Your task to perform on an android device: toggle wifi Image 0: 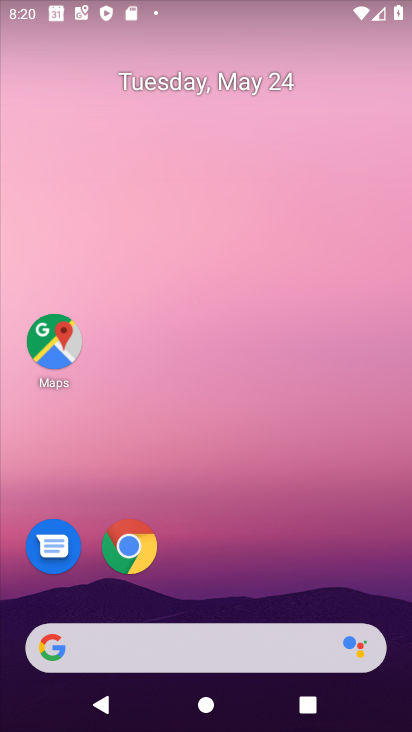
Step 0: drag from (263, 530) to (238, 20)
Your task to perform on an android device: toggle wifi Image 1: 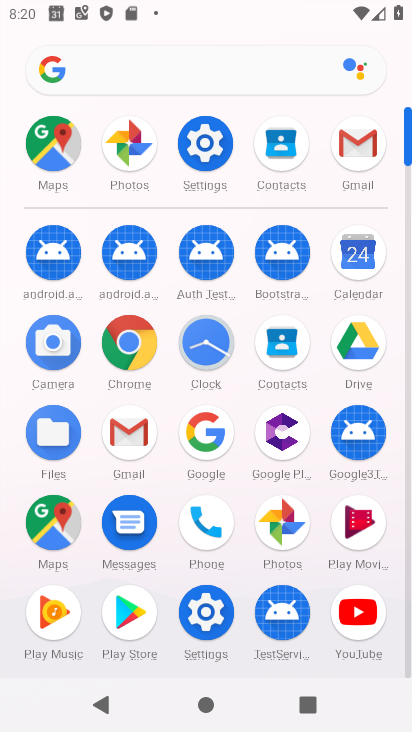
Step 1: click (213, 131)
Your task to perform on an android device: toggle wifi Image 2: 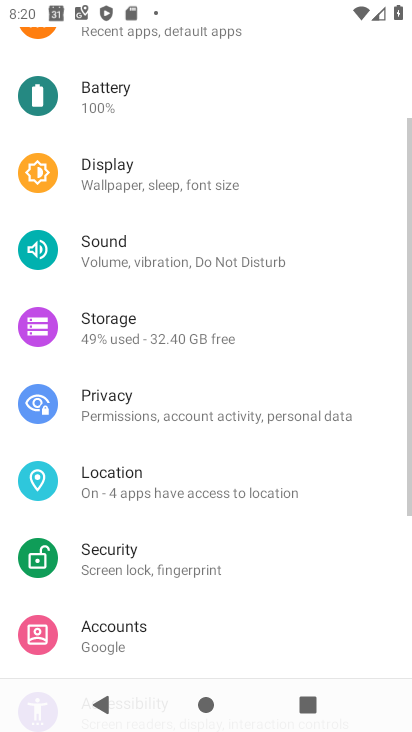
Step 2: drag from (213, 133) to (198, 634)
Your task to perform on an android device: toggle wifi Image 3: 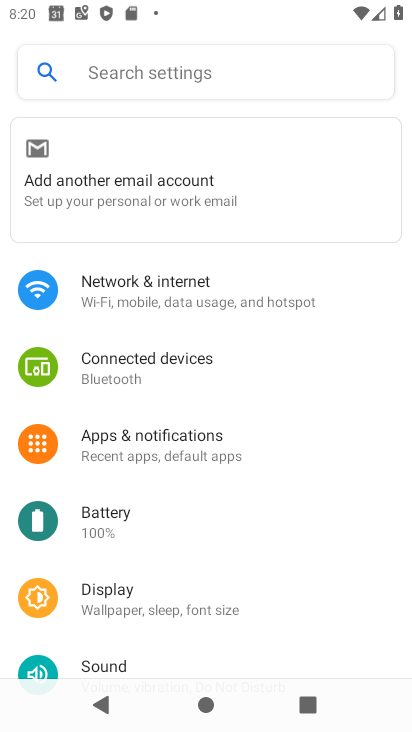
Step 3: click (226, 305)
Your task to perform on an android device: toggle wifi Image 4: 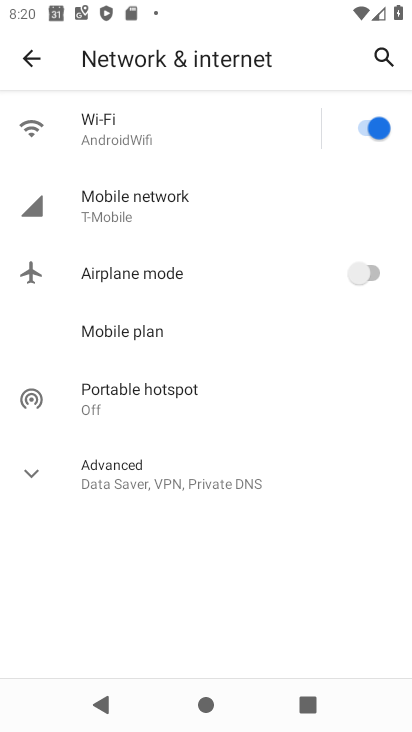
Step 4: click (368, 124)
Your task to perform on an android device: toggle wifi Image 5: 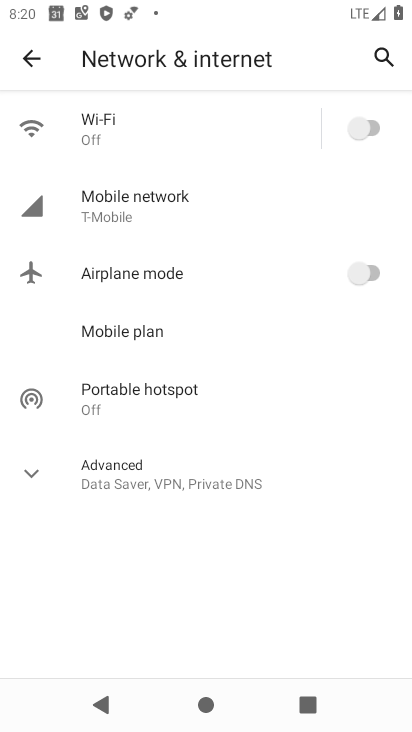
Step 5: task complete